Your task to perform on an android device: snooze an email in the gmail app Image 0: 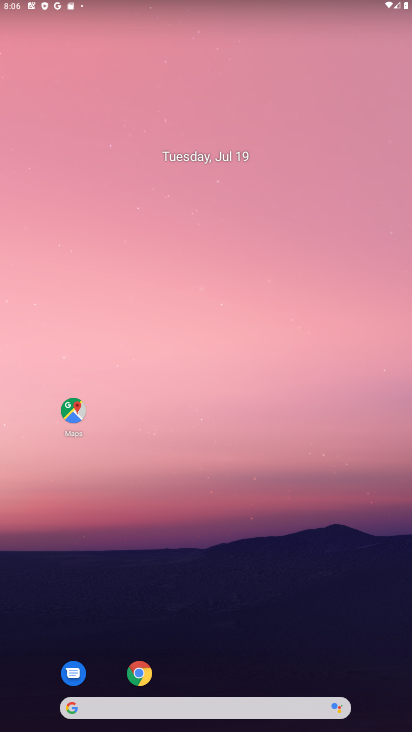
Step 0: drag from (225, 679) to (225, 250)
Your task to perform on an android device: snooze an email in the gmail app Image 1: 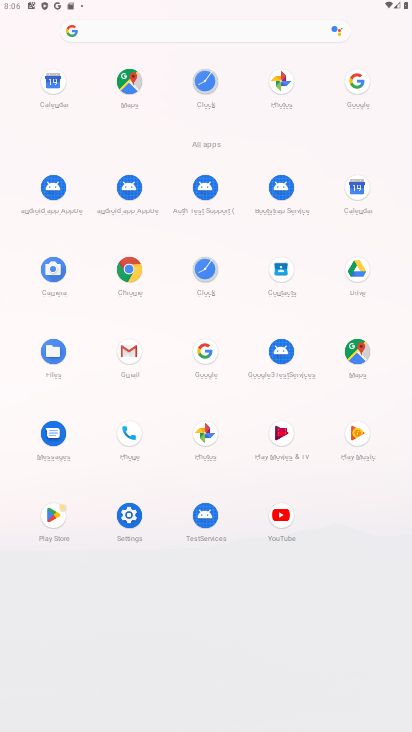
Step 1: click (138, 356)
Your task to perform on an android device: snooze an email in the gmail app Image 2: 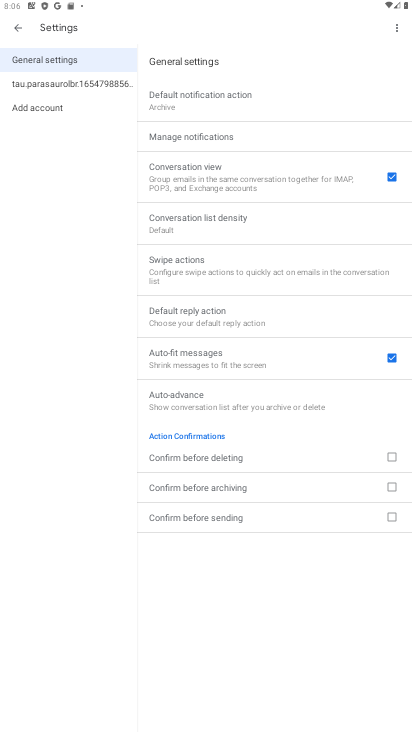
Step 2: task complete